Your task to perform on an android device: open app "DoorDash - Dasher" Image 0: 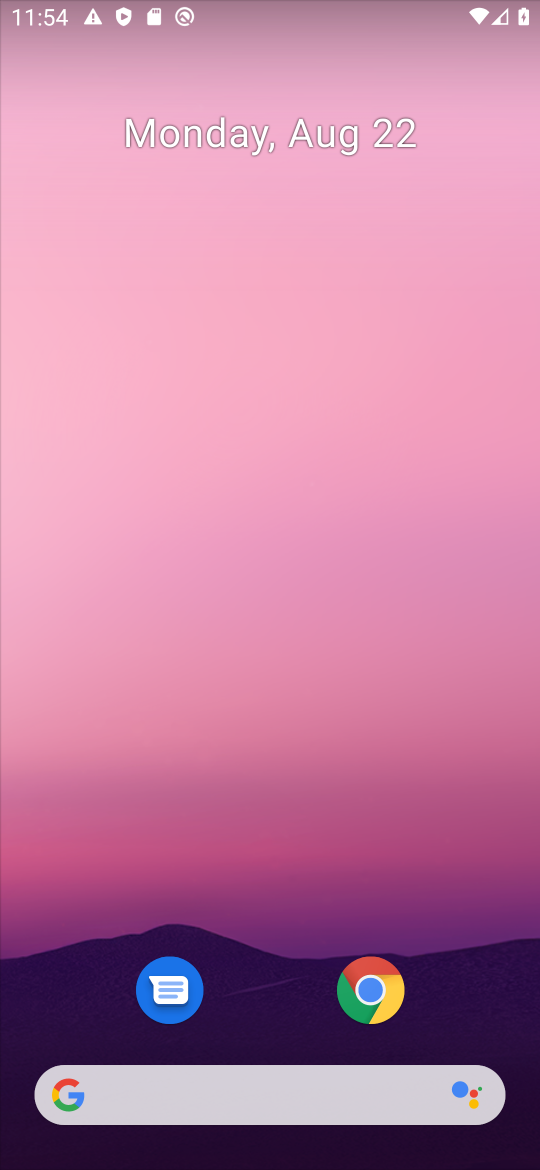
Step 0: drag from (278, 1012) to (392, 367)
Your task to perform on an android device: open app "DoorDash - Dasher" Image 1: 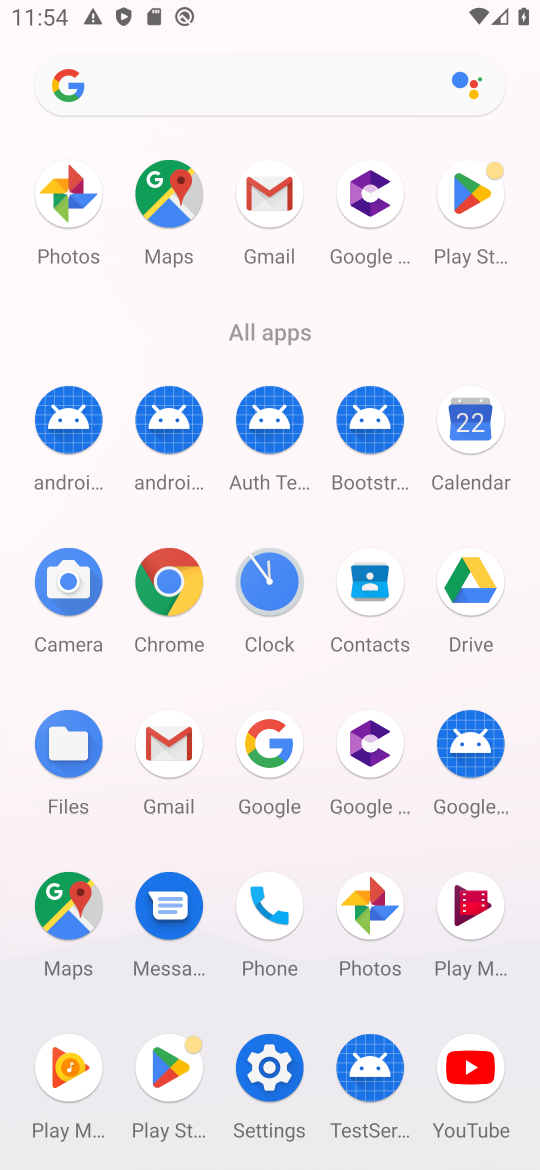
Step 1: click (477, 172)
Your task to perform on an android device: open app "DoorDash - Dasher" Image 2: 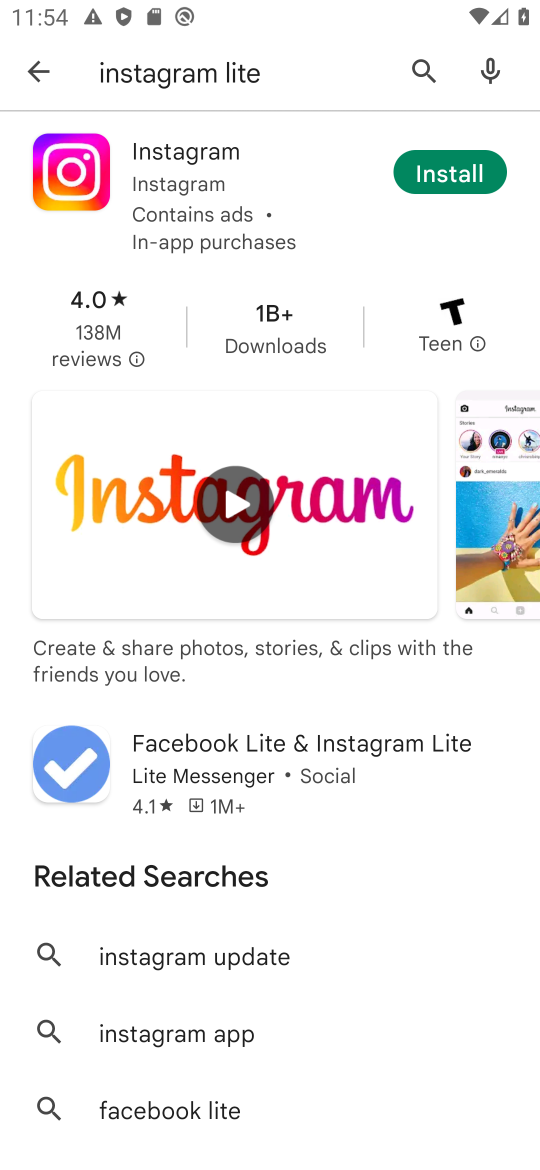
Step 2: click (30, 61)
Your task to perform on an android device: open app "DoorDash - Dasher" Image 3: 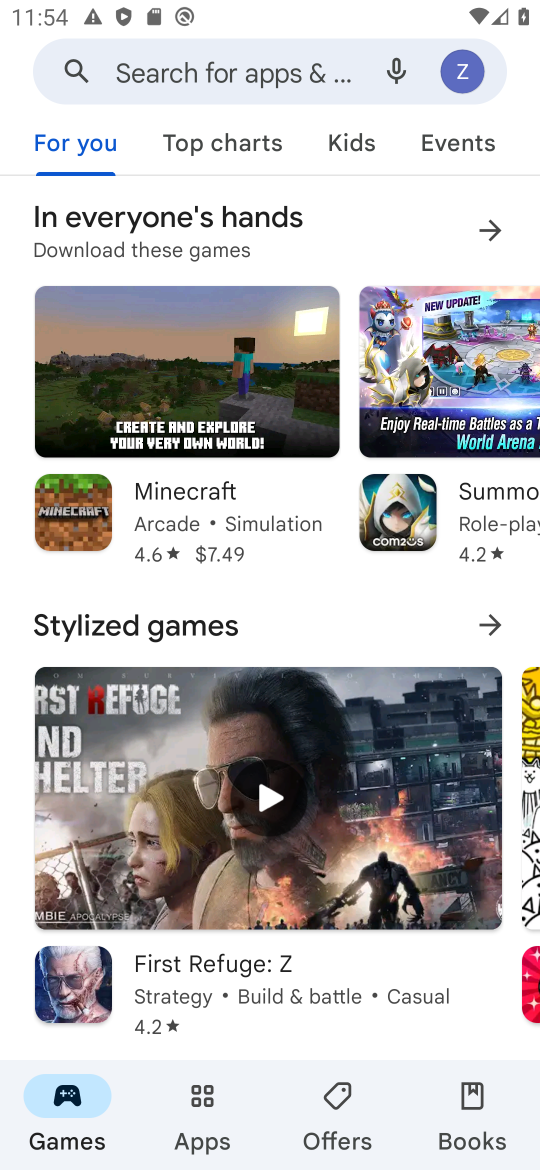
Step 3: click (231, 57)
Your task to perform on an android device: open app "DoorDash - Dasher" Image 4: 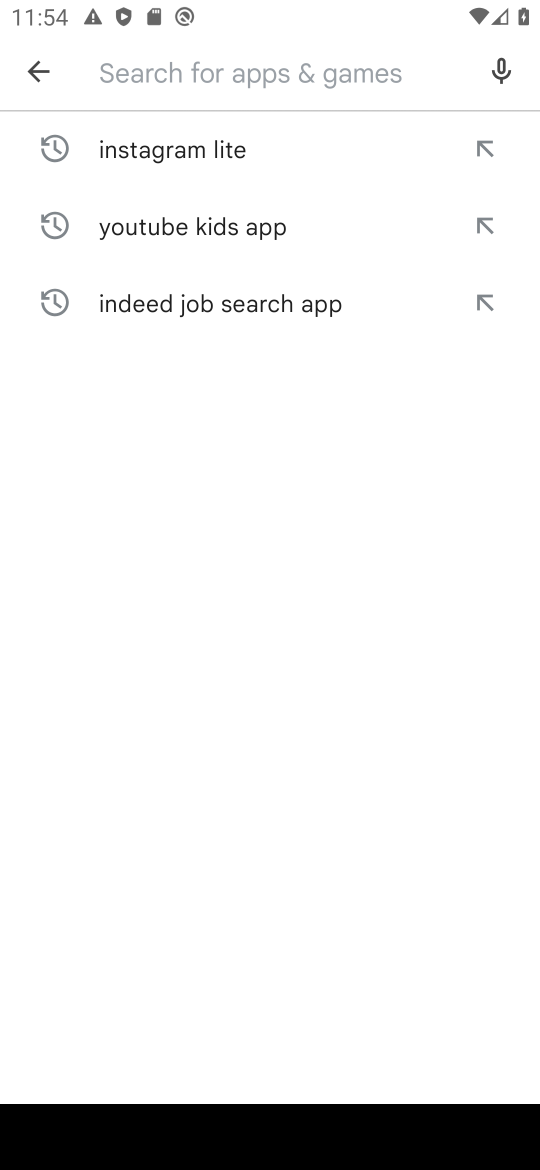
Step 4: type "DoorDash - Dasher "
Your task to perform on an android device: open app "DoorDash - Dasher" Image 5: 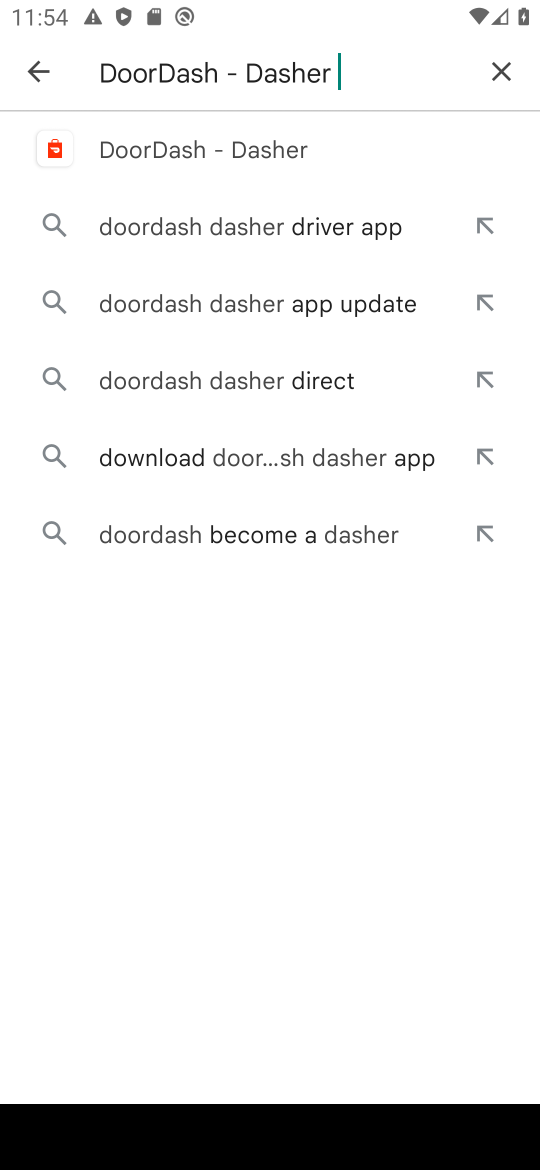
Step 5: click (117, 155)
Your task to perform on an android device: open app "DoorDash - Dasher" Image 6: 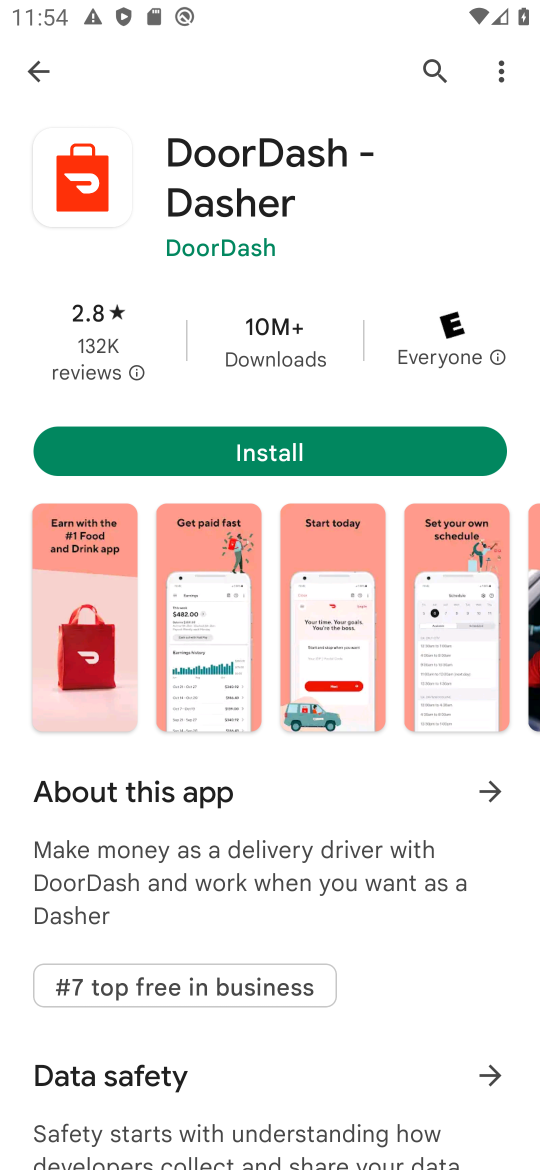
Step 6: click (270, 436)
Your task to perform on an android device: open app "DoorDash - Dasher" Image 7: 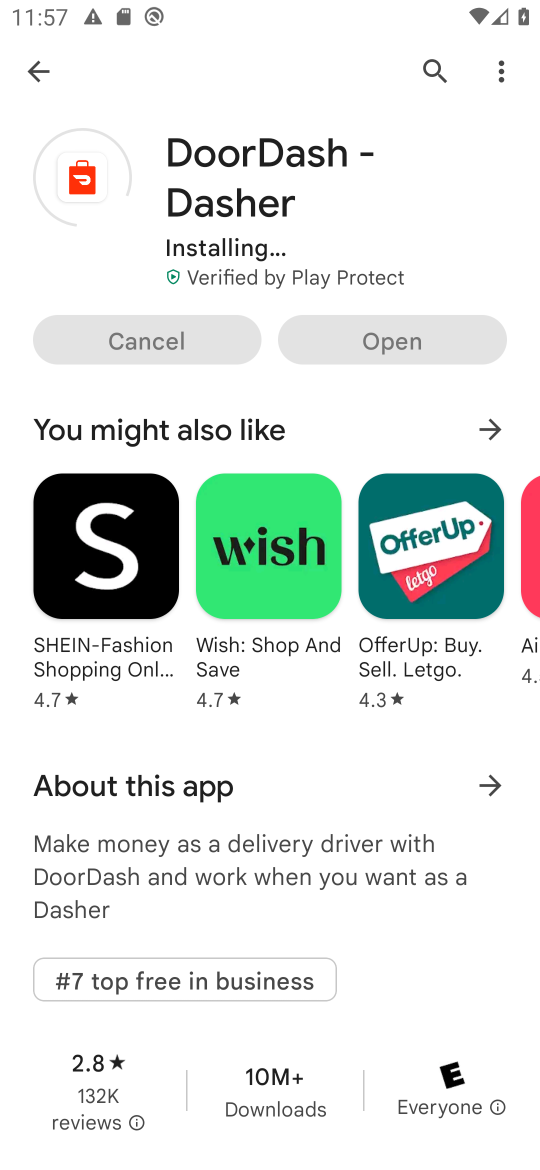
Step 7: task complete